Your task to perform on an android device: allow notifications from all sites in the chrome app Image 0: 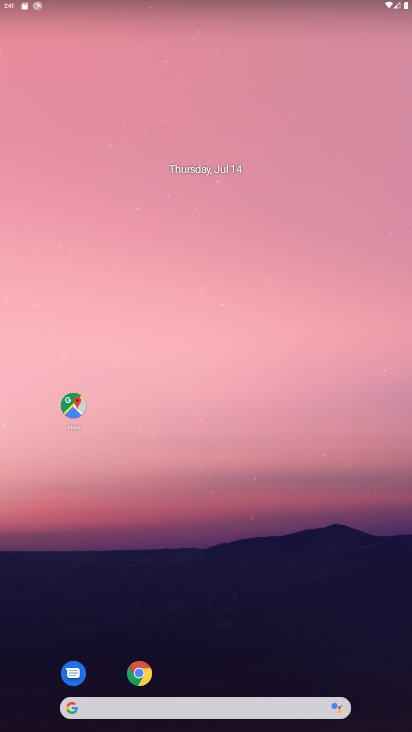
Step 0: drag from (235, 672) to (143, 164)
Your task to perform on an android device: allow notifications from all sites in the chrome app Image 1: 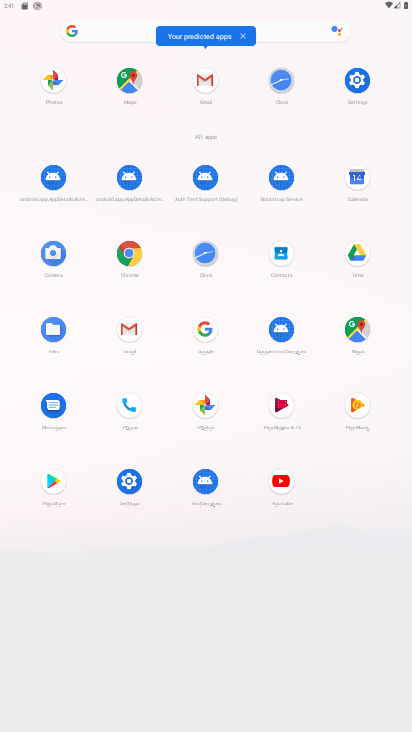
Step 1: click (140, 262)
Your task to perform on an android device: allow notifications from all sites in the chrome app Image 2: 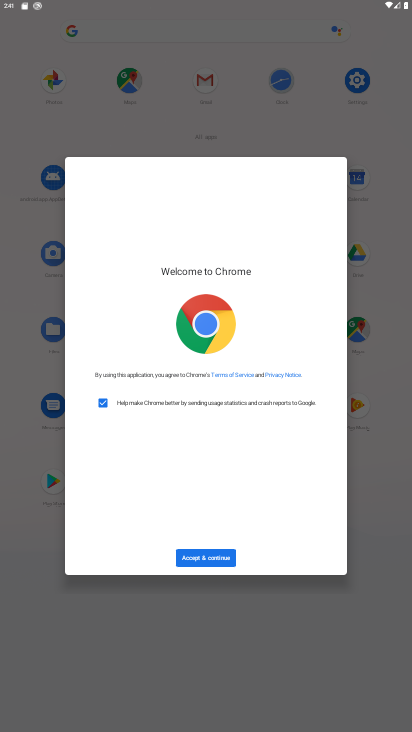
Step 2: click (225, 552)
Your task to perform on an android device: allow notifications from all sites in the chrome app Image 3: 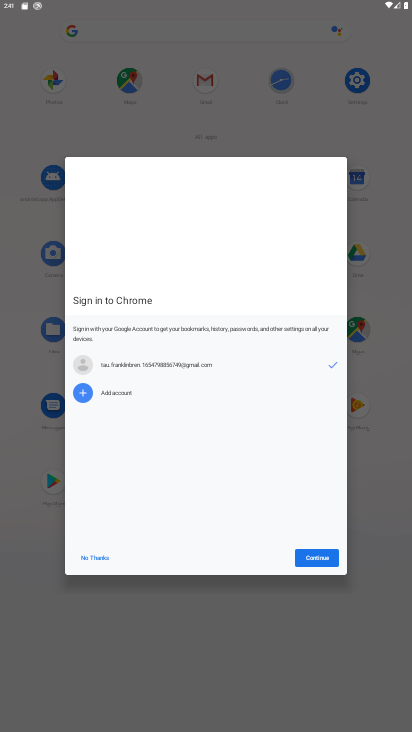
Step 3: click (319, 567)
Your task to perform on an android device: allow notifications from all sites in the chrome app Image 4: 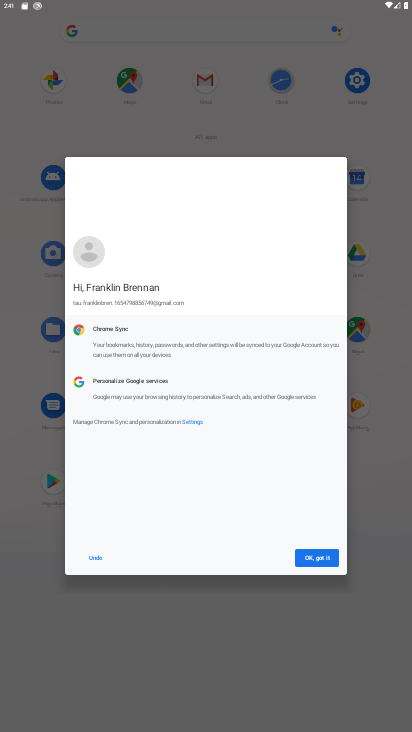
Step 4: click (319, 567)
Your task to perform on an android device: allow notifications from all sites in the chrome app Image 5: 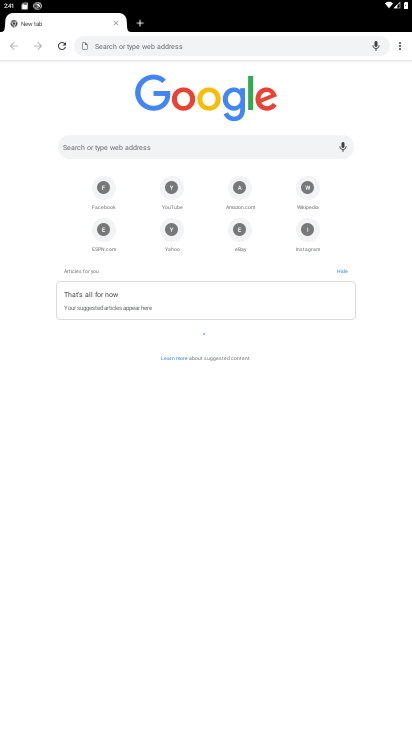
Step 5: click (394, 51)
Your task to perform on an android device: allow notifications from all sites in the chrome app Image 6: 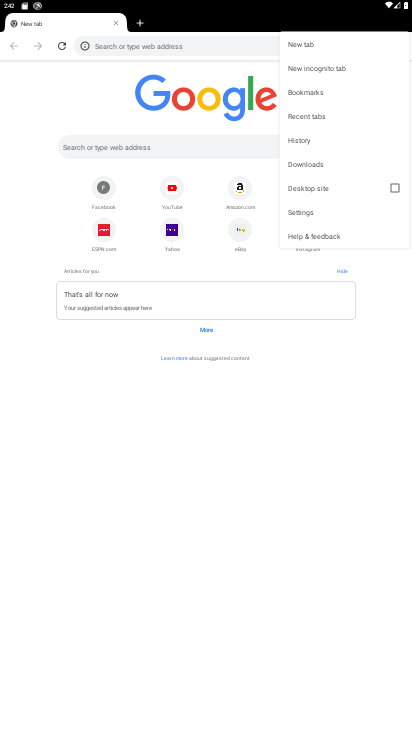
Step 6: click (315, 214)
Your task to perform on an android device: allow notifications from all sites in the chrome app Image 7: 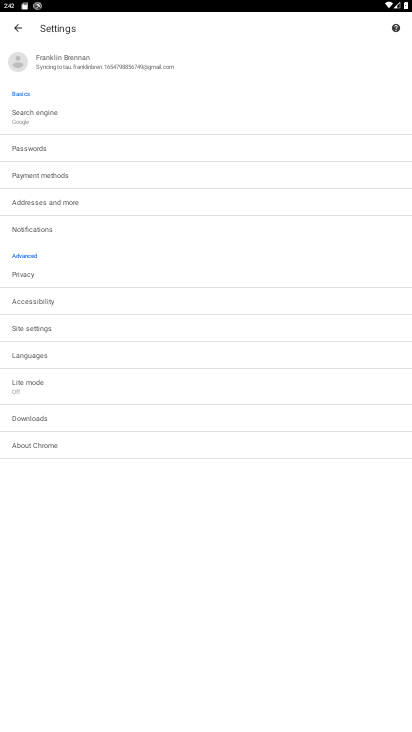
Step 7: click (53, 330)
Your task to perform on an android device: allow notifications from all sites in the chrome app Image 8: 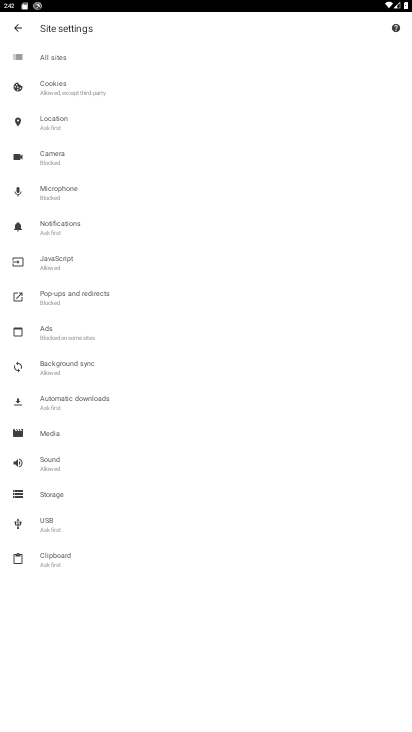
Step 8: click (74, 234)
Your task to perform on an android device: allow notifications from all sites in the chrome app Image 9: 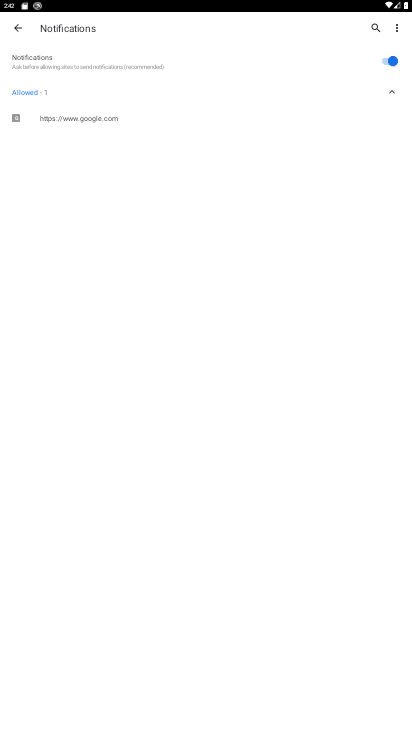
Step 9: task complete